Your task to perform on an android device: Open calendar and show me the second week of next month Image 0: 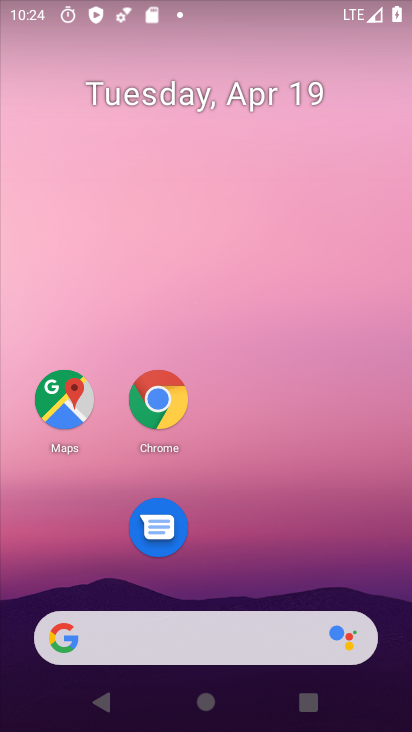
Step 0: drag from (234, 668) to (236, 478)
Your task to perform on an android device: Open calendar and show me the second week of next month Image 1: 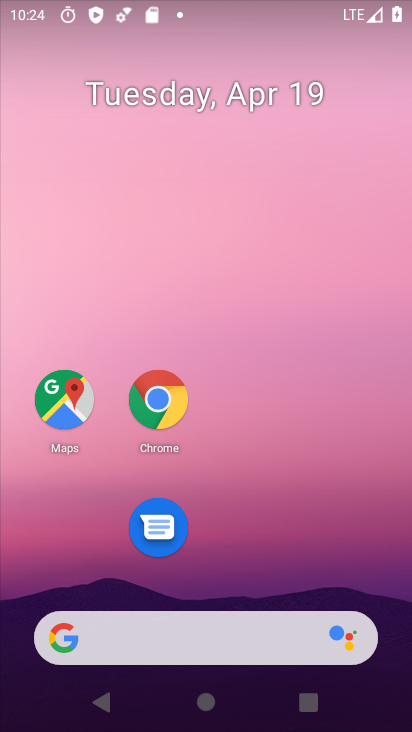
Step 1: drag from (267, 549) to (277, 173)
Your task to perform on an android device: Open calendar and show me the second week of next month Image 2: 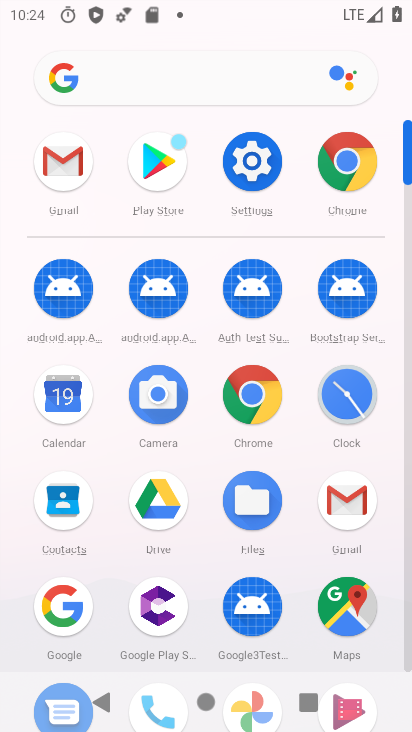
Step 2: click (78, 386)
Your task to perform on an android device: Open calendar and show me the second week of next month Image 3: 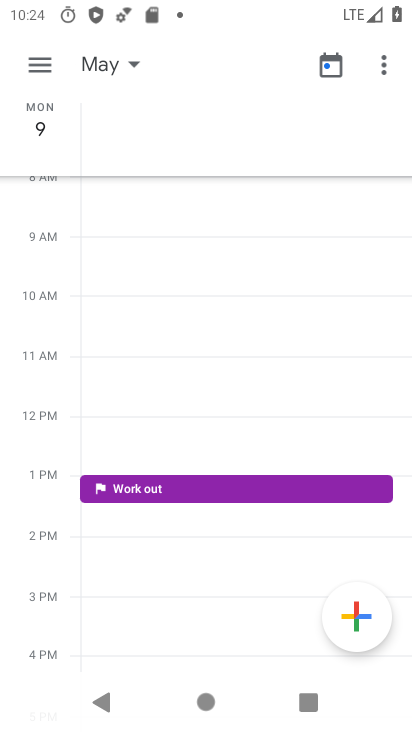
Step 3: click (38, 80)
Your task to perform on an android device: Open calendar and show me the second week of next month Image 4: 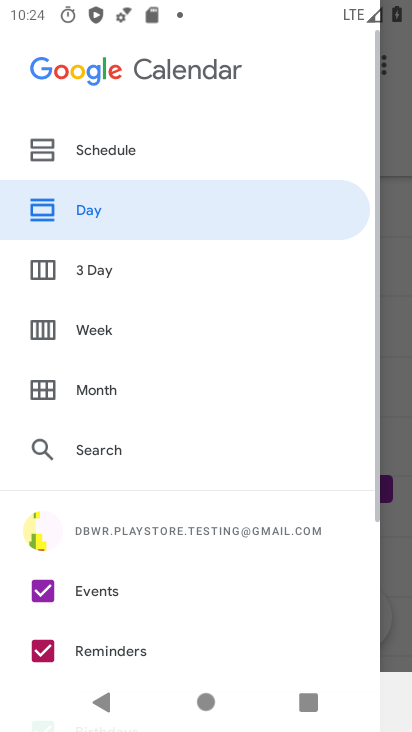
Step 4: click (110, 395)
Your task to perform on an android device: Open calendar and show me the second week of next month Image 5: 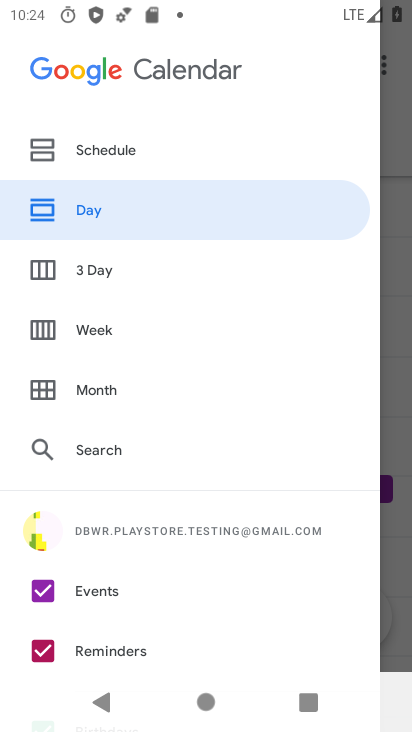
Step 5: click (103, 389)
Your task to perform on an android device: Open calendar and show me the second week of next month Image 6: 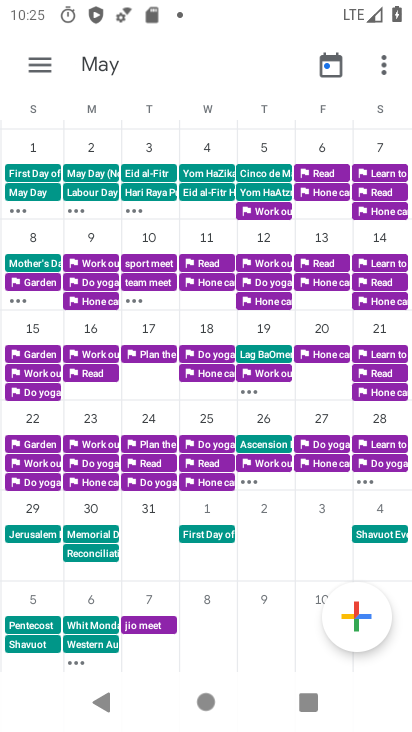
Step 6: click (86, 239)
Your task to perform on an android device: Open calendar and show me the second week of next month Image 7: 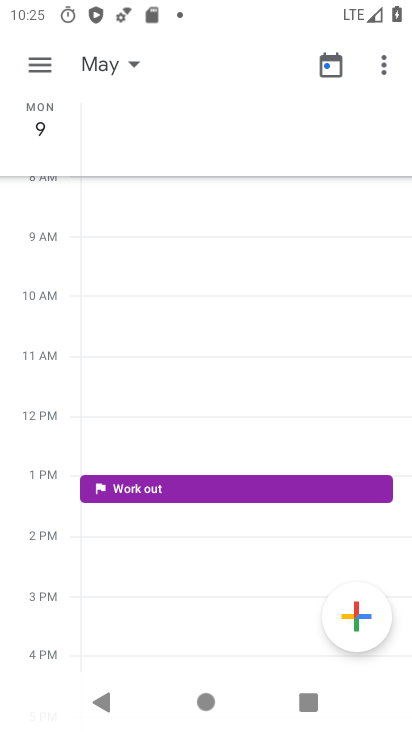
Step 7: task complete